Your task to perform on an android device: set the stopwatch Image 0: 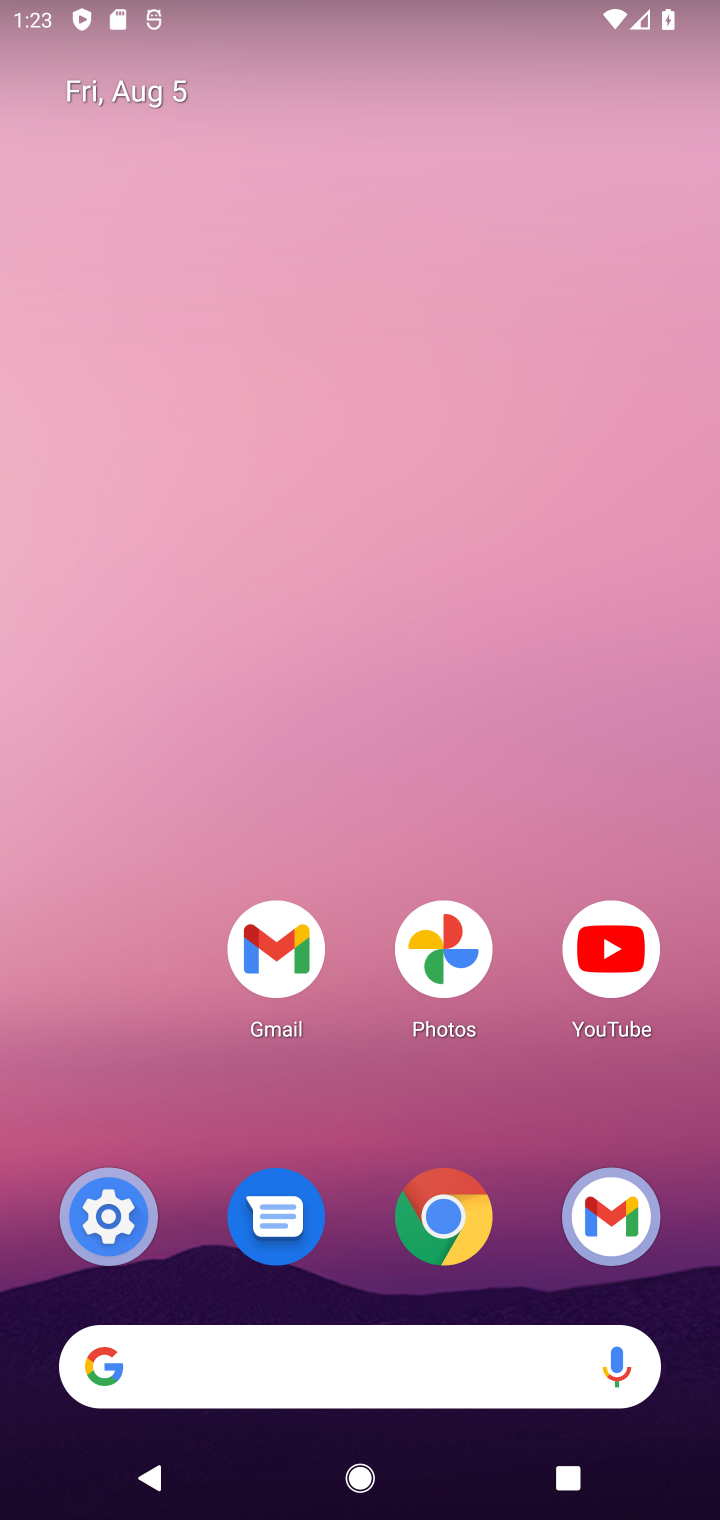
Step 0: drag from (246, 1215) to (242, 350)
Your task to perform on an android device: set the stopwatch Image 1: 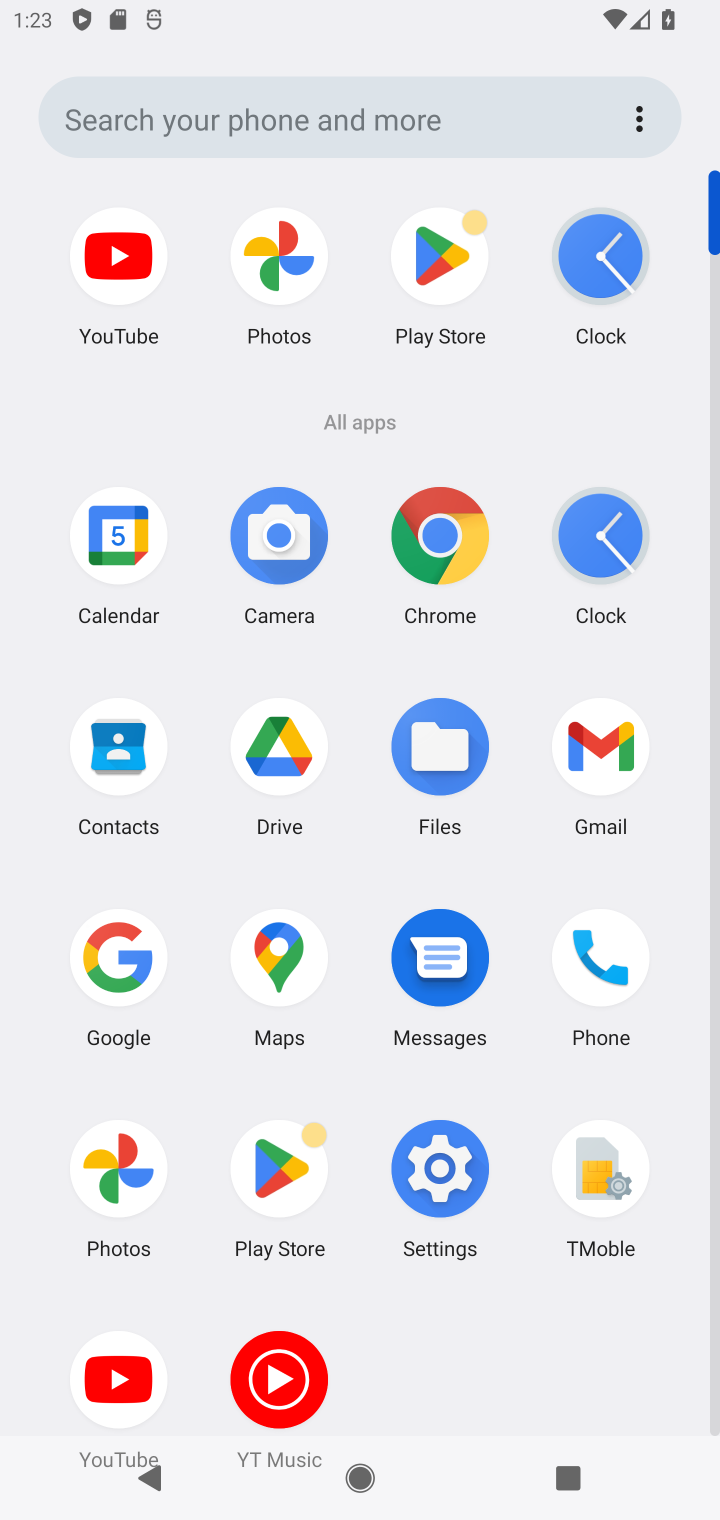
Step 1: click (614, 551)
Your task to perform on an android device: set the stopwatch Image 2: 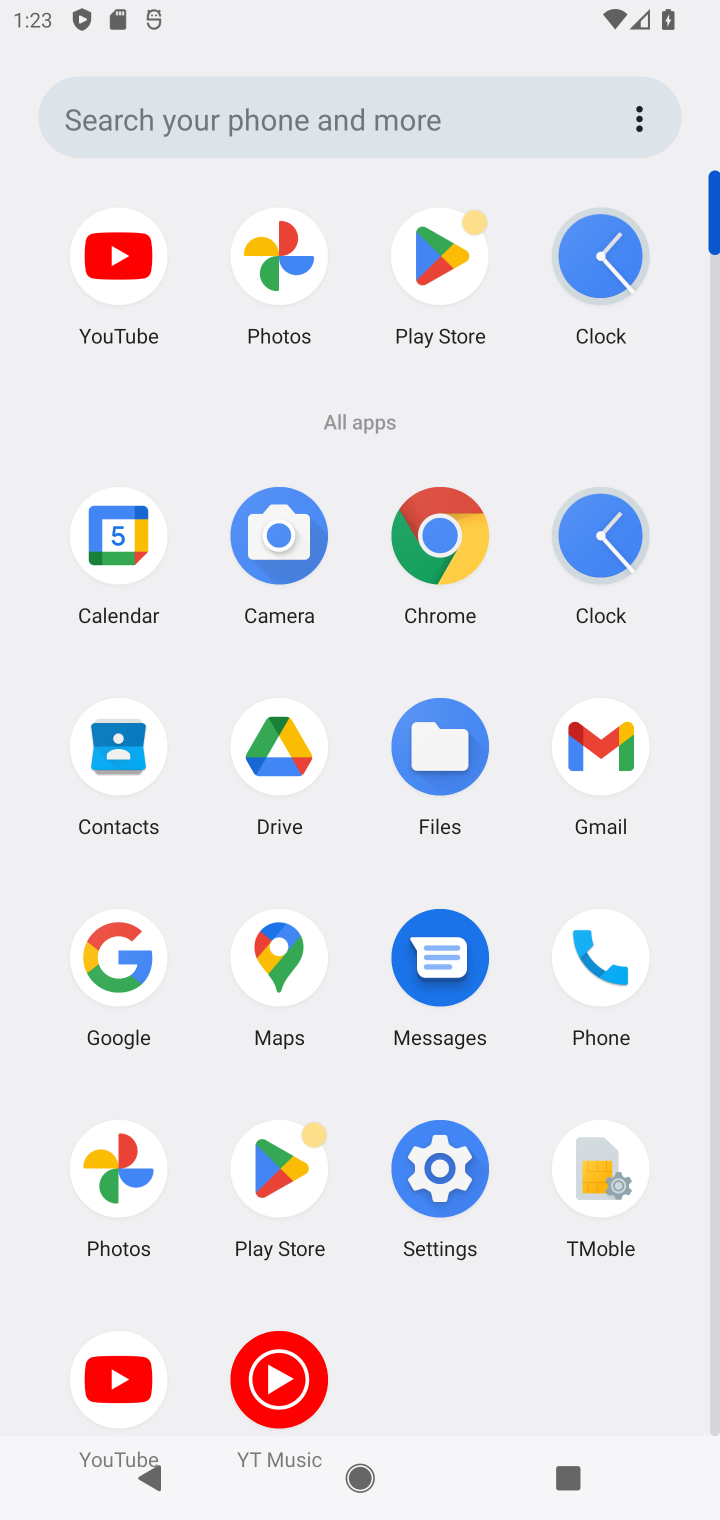
Step 2: click (614, 551)
Your task to perform on an android device: set the stopwatch Image 3: 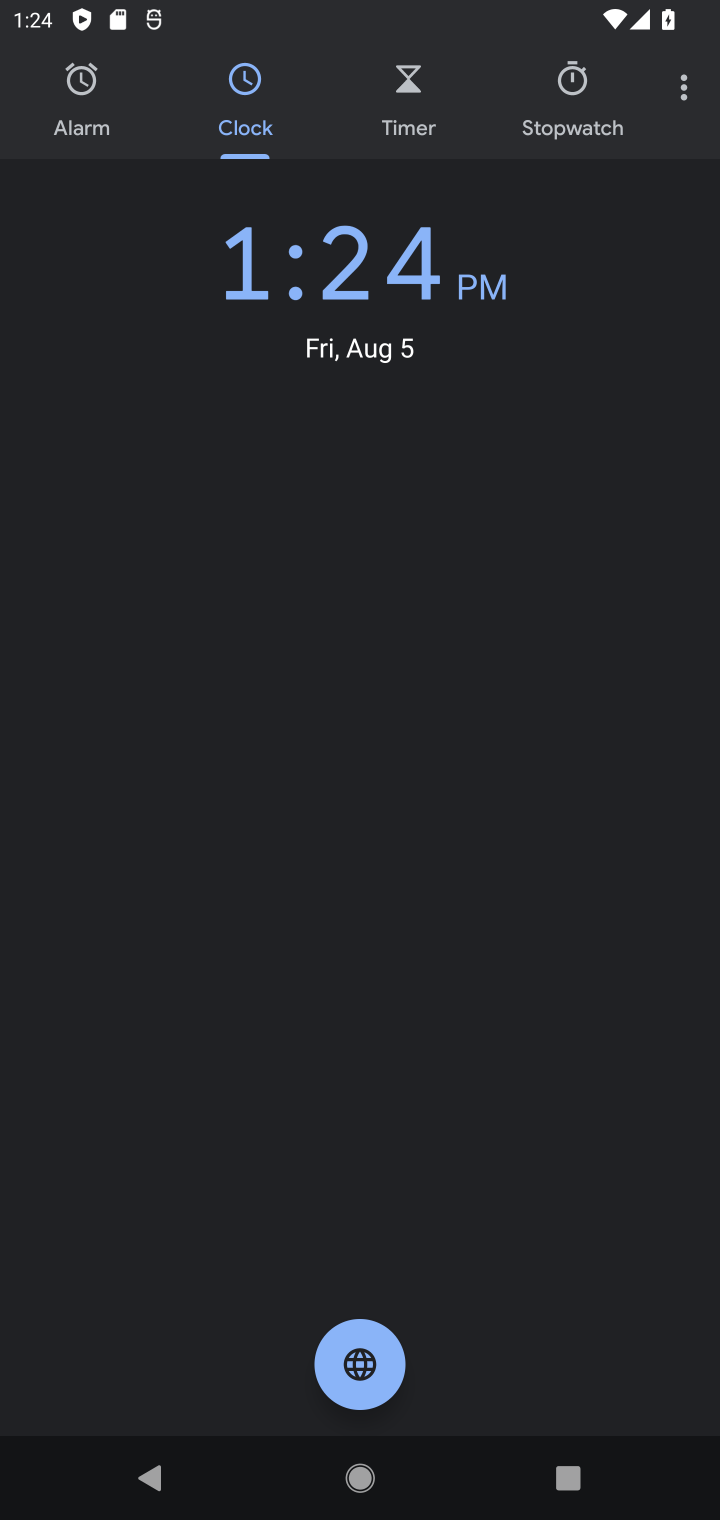
Step 3: click (584, 84)
Your task to perform on an android device: set the stopwatch Image 4: 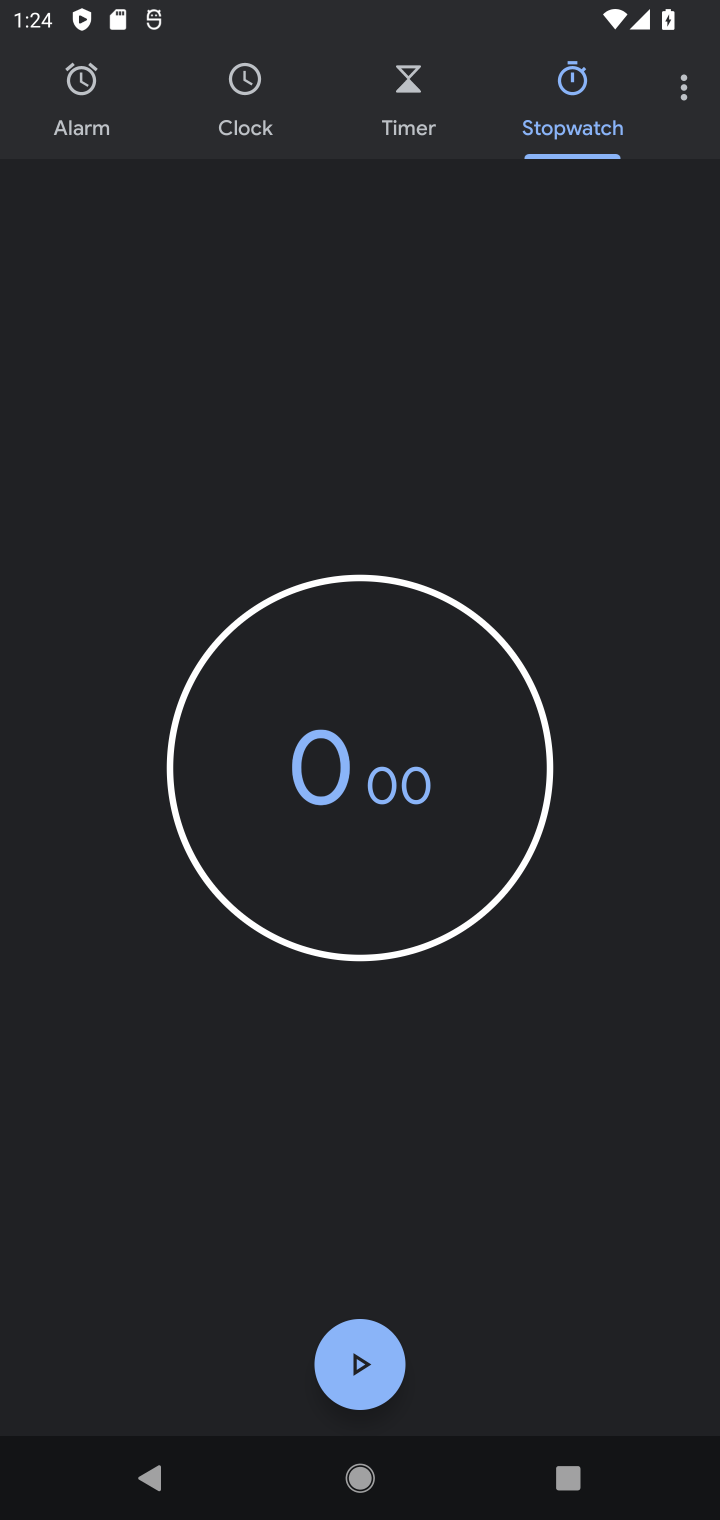
Step 4: task complete